Your task to perform on an android device: search for starred emails in the gmail app Image 0: 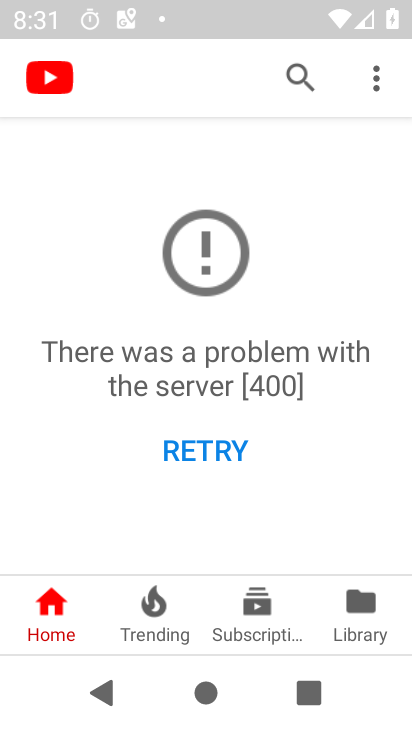
Step 0: press home button
Your task to perform on an android device: search for starred emails in the gmail app Image 1: 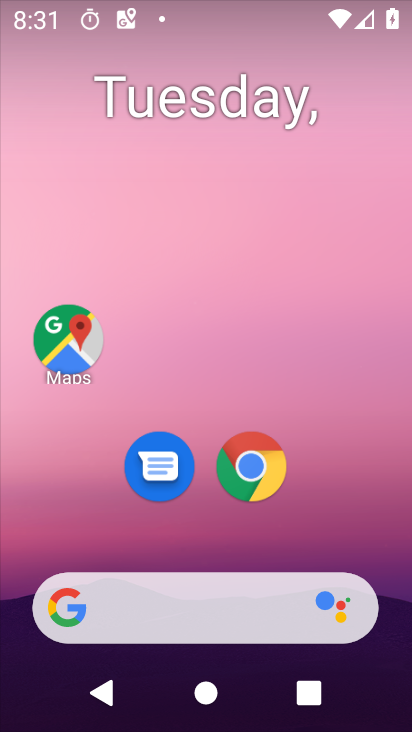
Step 1: drag from (215, 547) to (255, 46)
Your task to perform on an android device: search for starred emails in the gmail app Image 2: 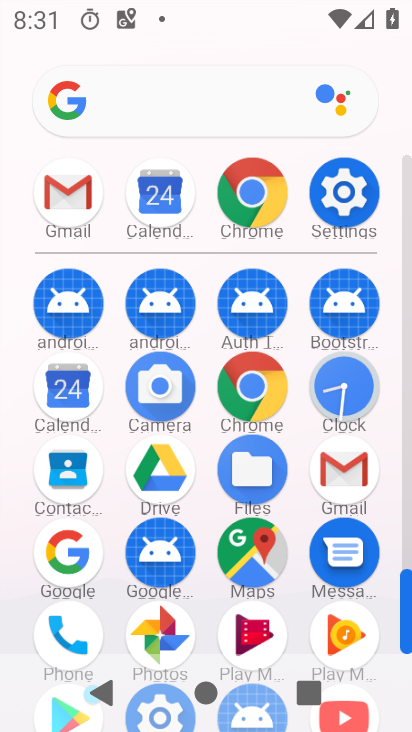
Step 2: click (345, 467)
Your task to perform on an android device: search for starred emails in the gmail app Image 3: 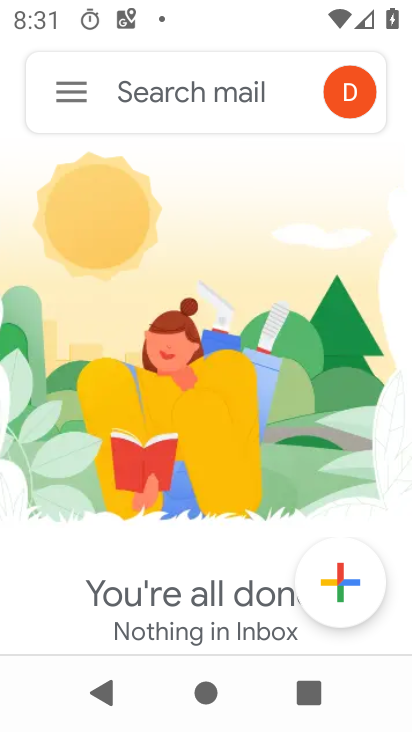
Step 3: click (63, 93)
Your task to perform on an android device: search for starred emails in the gmail app Image 4: 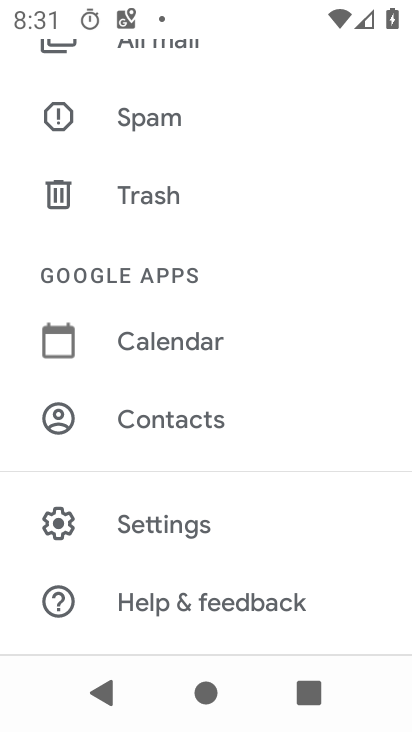
Step 4: drag from (197, 223) to (226, 531)
Your task to perform on an android device: search for starred emails in the gmail app Image 5: 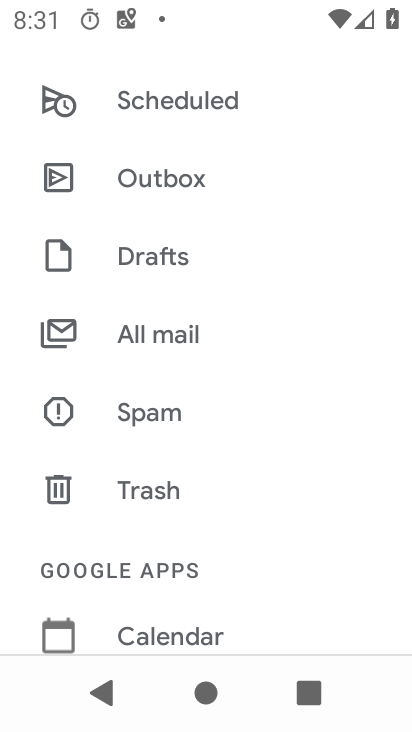
Step 5: drag from (182, 161) to (177, 395)
Your task to perform on an android device: search for starred emails in the gmail app Image 6: 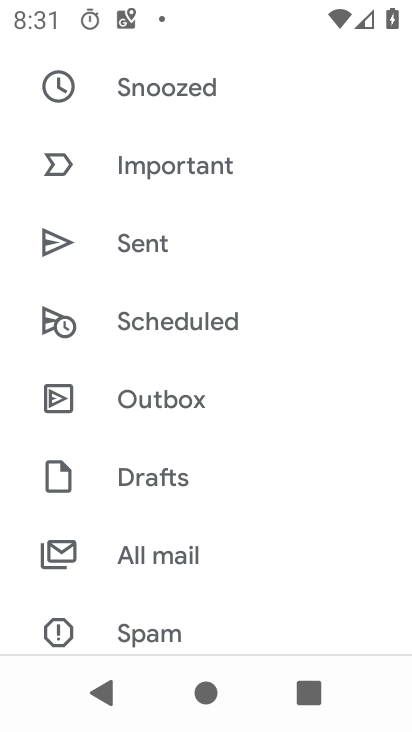
Step 6: drag from (210, 227) to (201, 527)
Your task to perform on an android device: search for starred emails in the gmail app Image 7: 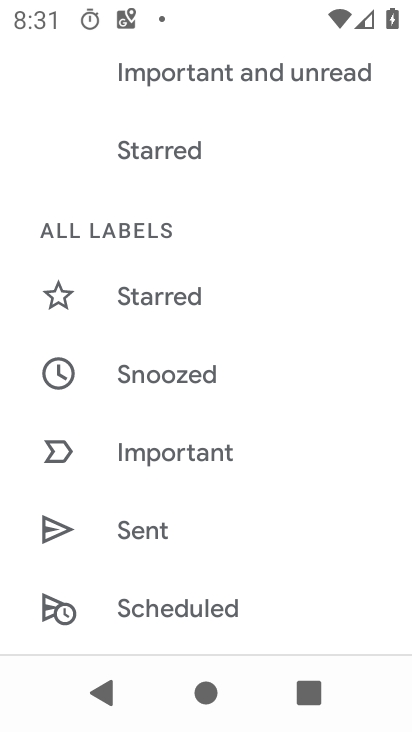
Step 7: click (183, 210)
Your task to perform on an android device: search for starred emails in the gmail app Image 8: 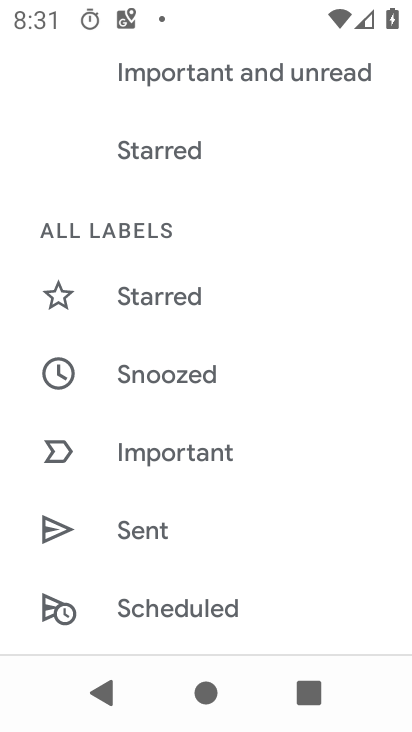
Step 8: click (195, 156)
Your task to perform on an android device: search for starred emails in the gmail app Image 9: 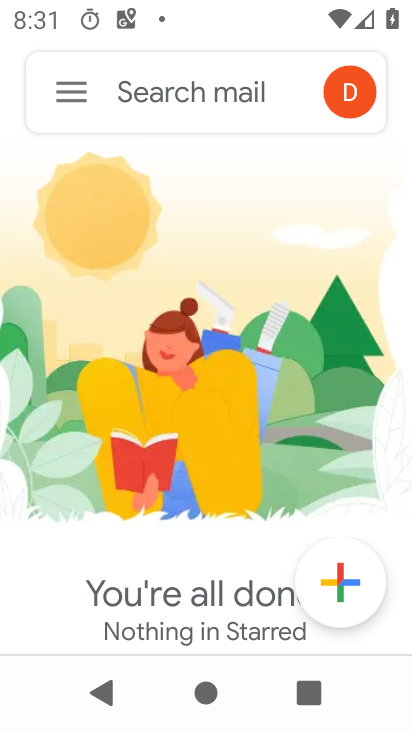
Step 9: task complete